Your task to perform on an android device: turn off smart reply in the gmail app Image 0: 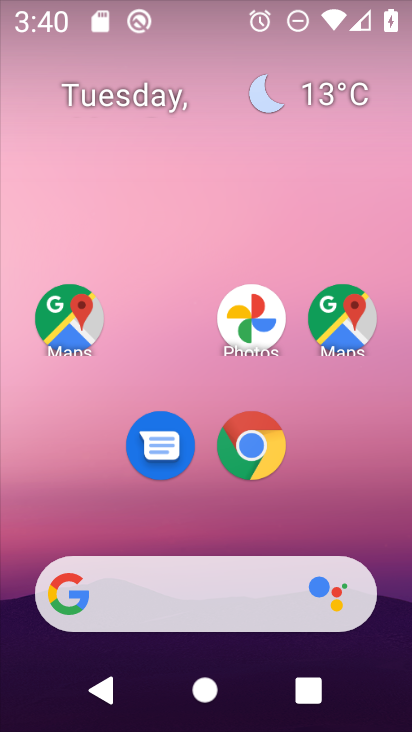
Step 0: drag from (390, 559) to (385, 328)
Your task to perform on an android device: turn off smart reply in the gmail app Image 1: 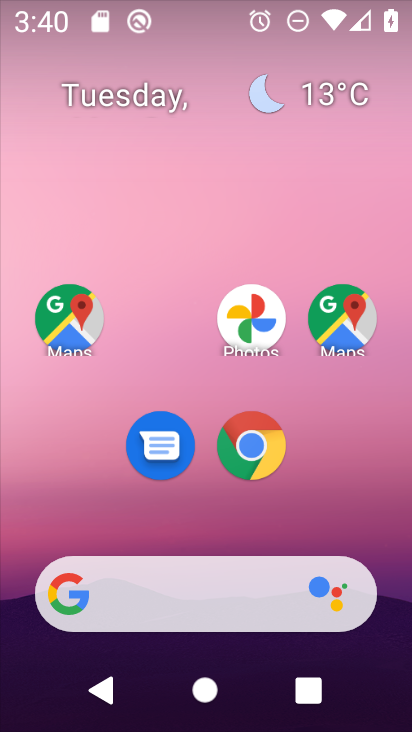
Step 1: drag from (397, 562) to (391, 229)
Your task to perform on an android device: turn off smart reply in the gmail app Image 2: 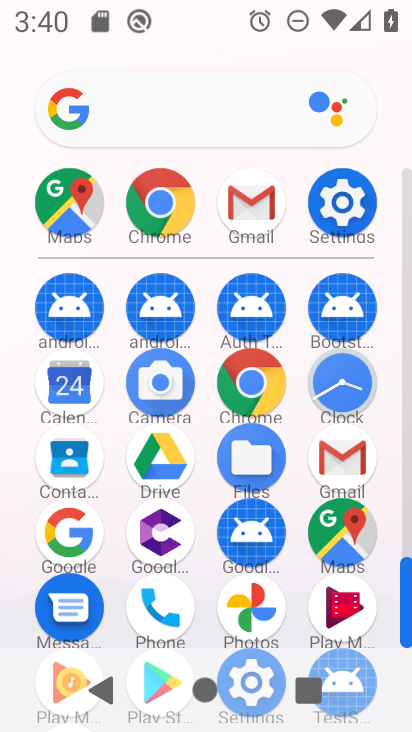
Step 2: click (354, 468)
Your task to perform on an android device: turn off smart reply in the gmail app Image 3: 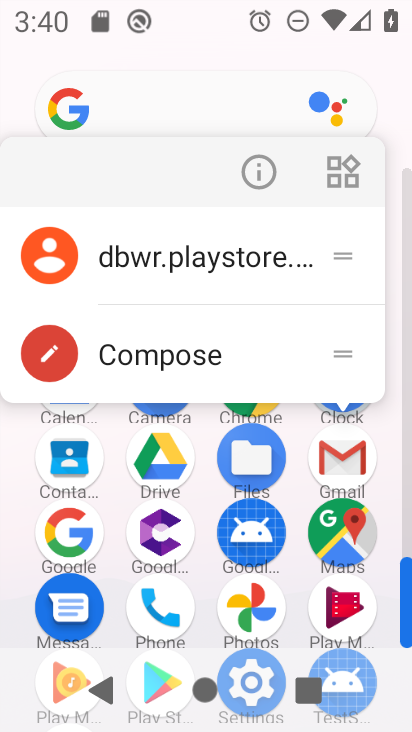
Step 3: click (354, 468)
Your task to perform on an android device: turn off smart reply in the gmail app Image 4: 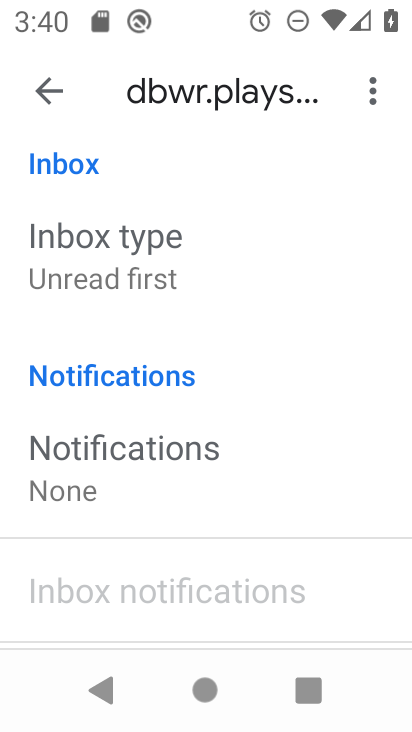
Step 4: task complete